Your task to perform on an android device: Open Yahoo.com Image 0: 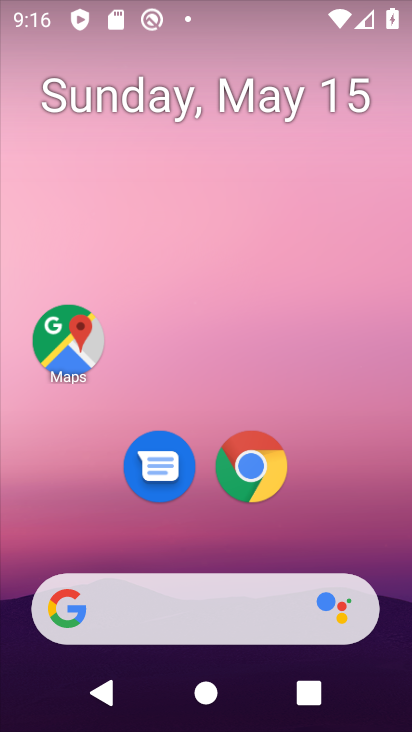
Step 0: click (251, 472)
Your task to perform on an android device: Open Yahoo.com Image 1: 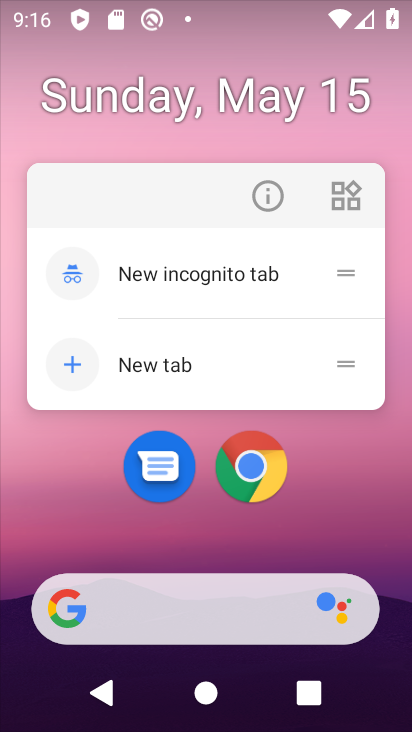
Step 1: click (247, 463)
Your task to perform on an android device: Open Yahoo.com Image 2: 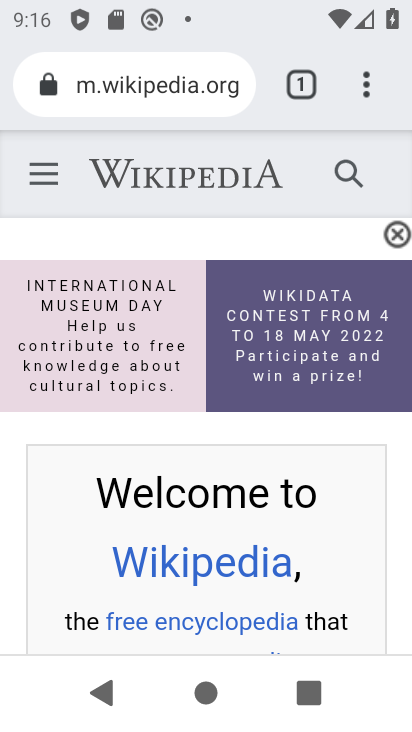
Step 2: click (132, 79)
Your task to perform on an android device: Open Yahoo.com Image 3: 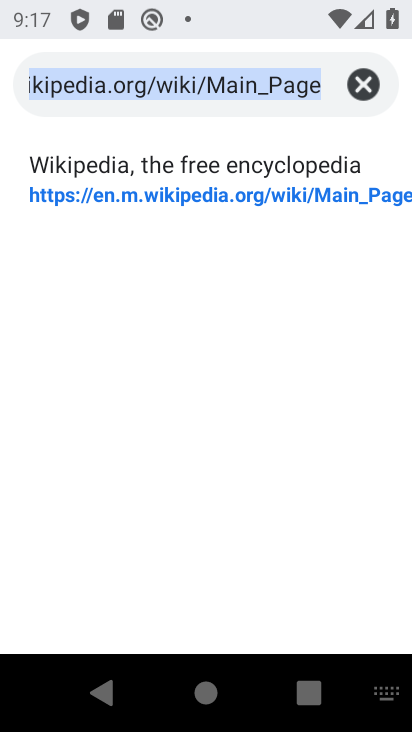
Step 3: type "yahoo.com"
Your task to perform on an android device: Open Yahoo.com Image 4: 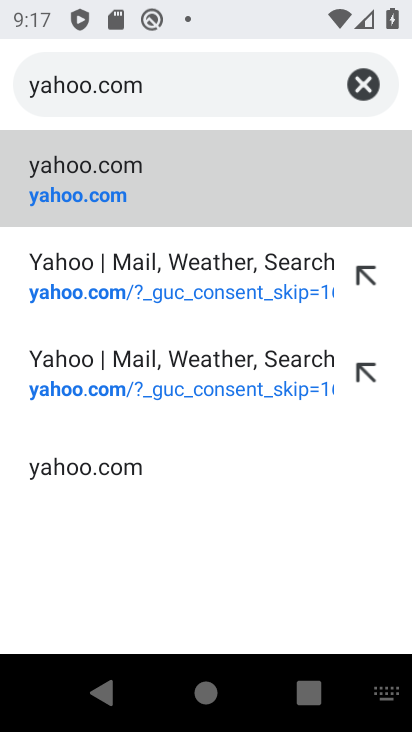
Step 4: click (92, 198)
Your task to perform on an android device: Open Yahoo.com Image 5: 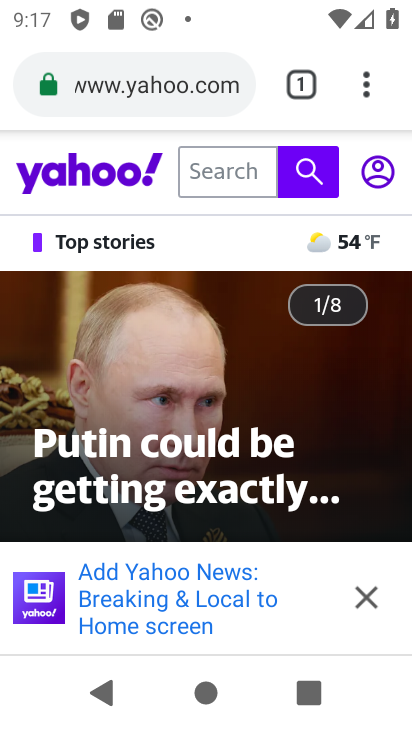
Step 5: task complete